Your task to perform on an android device: set an alarm Image 0: 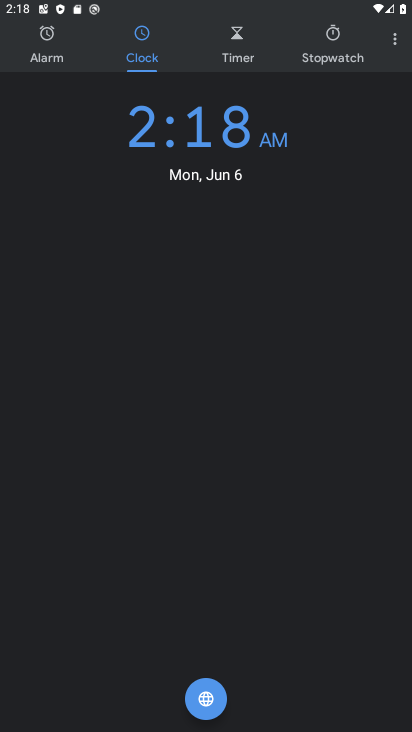
Step 0: press home button
Your task to perform on an android device: set an alarm Image 1: 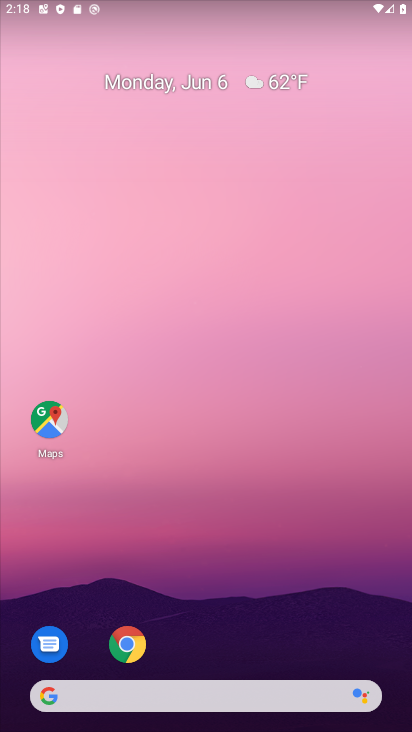
Step 1: drag from (146, 730) to (304, 47)
Your task to perform on an android device: set an alarm Image 2: 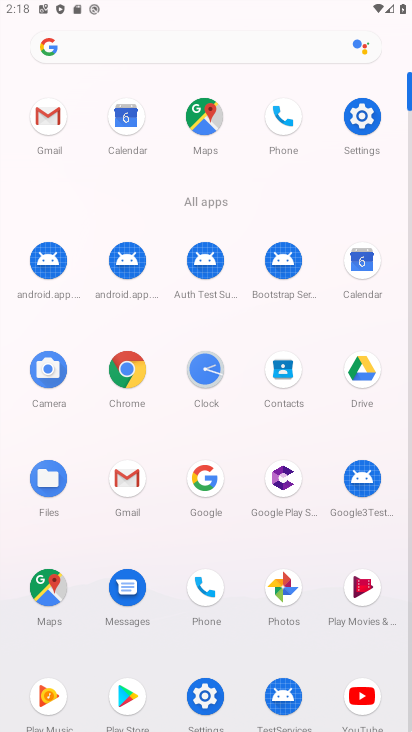
Step 2: click (201, 385)
Your task to perform on an android device: set an alarm Image 3: 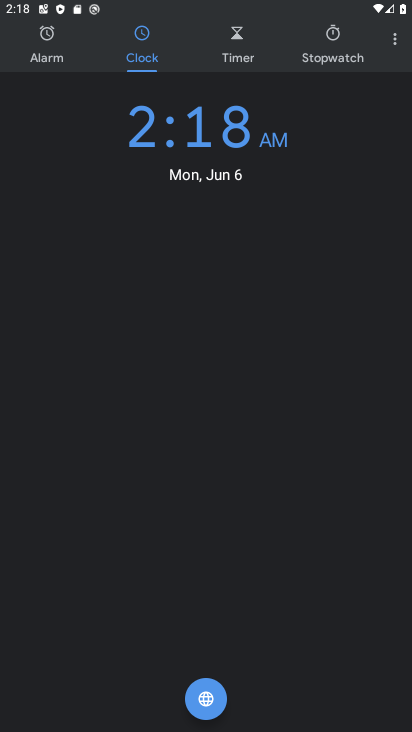
Step 3: click (40, 50)
Your task to perform on an android device: set an alarm Image 4: 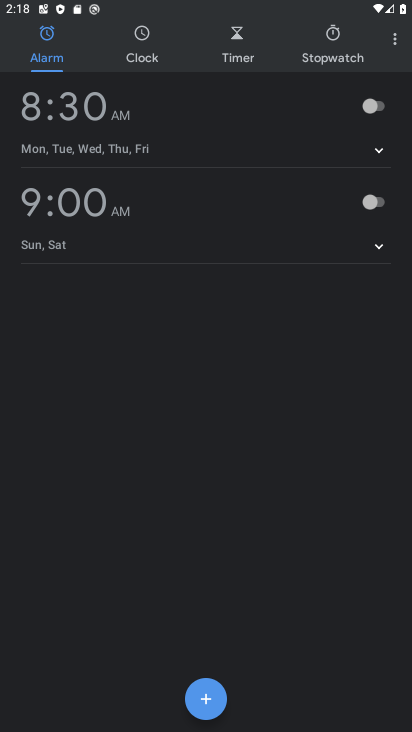
Step 4: click (196, 709)
Your task to perform on an android device: set an alarm Image 5: 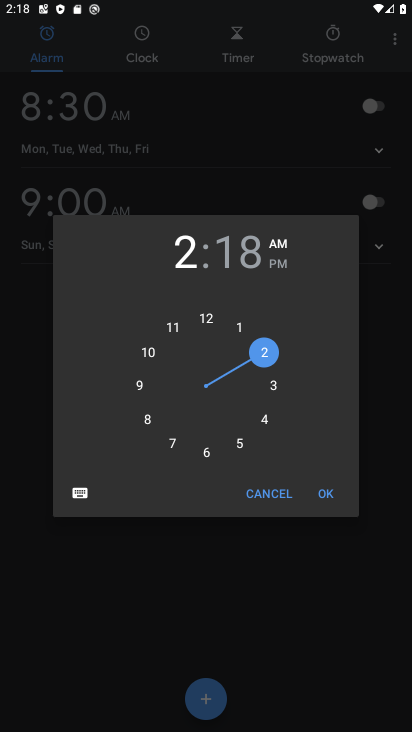
Step 5: click (271, 347)
Your task to perform on an android device: set an alarm Image 6: 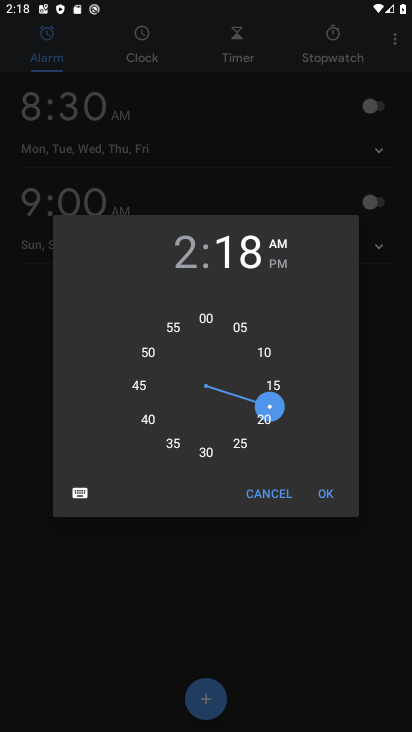
Step 6: click (208, 463)
Your task to perform on an android device: set an alarm Image 7: 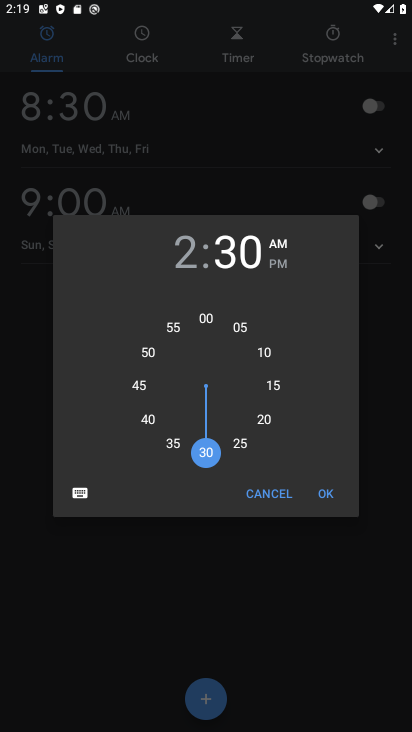
Step 7: click (285, 260)
Your task to perform on an android device: set an alarm Image 8: 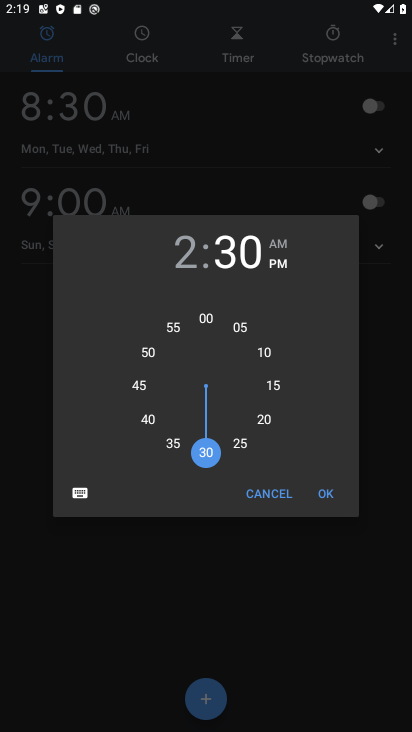
Step 8: click (314, 488)
Your task to perform on an android device: set an alarm Image 9: 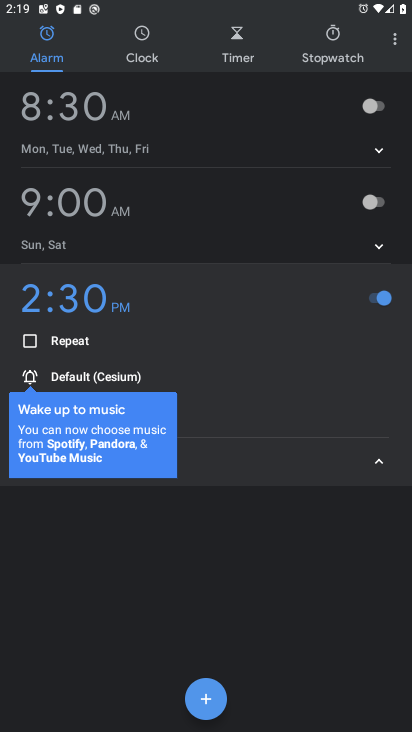
Step 9: click (378, 466)
Your task to perform on an android device: set an alarm Image 10: 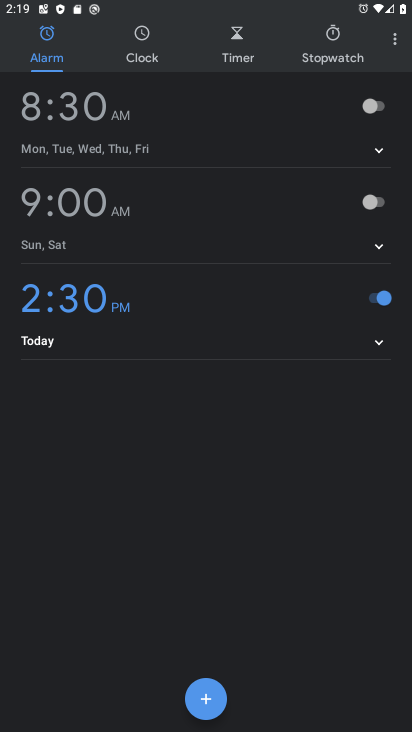
Step 10: task complete